Your task to perform on an android device: open device folders in google photos Image 0: 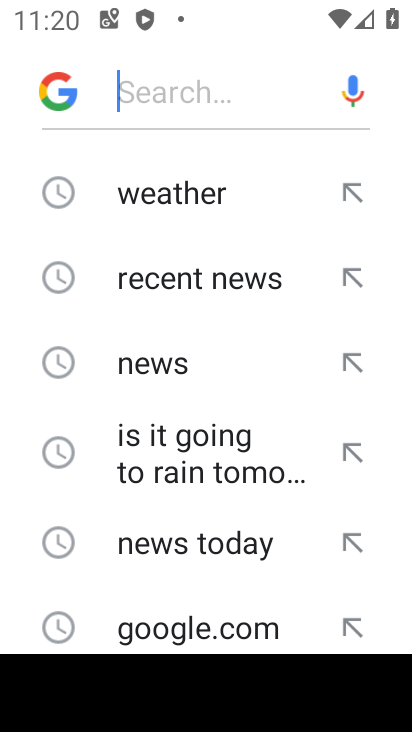
Step 0: press home button
Your task to perform on an android device: open device folders in google photos Image 1: 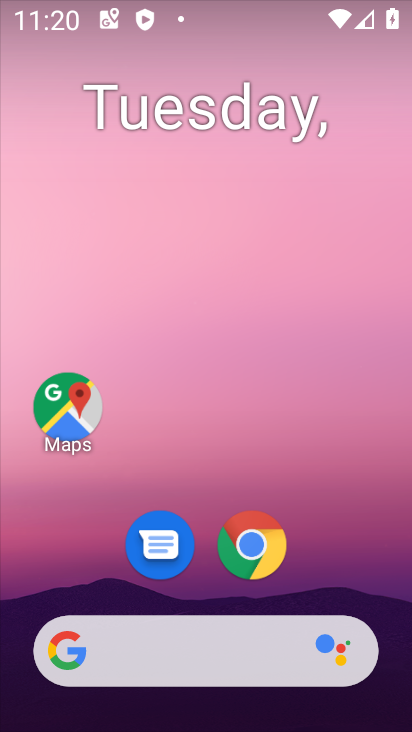
Step 1: drag from (325, 482) to (346, 112)
Your task to perform on an android device: open device folders in google photos Image 2: 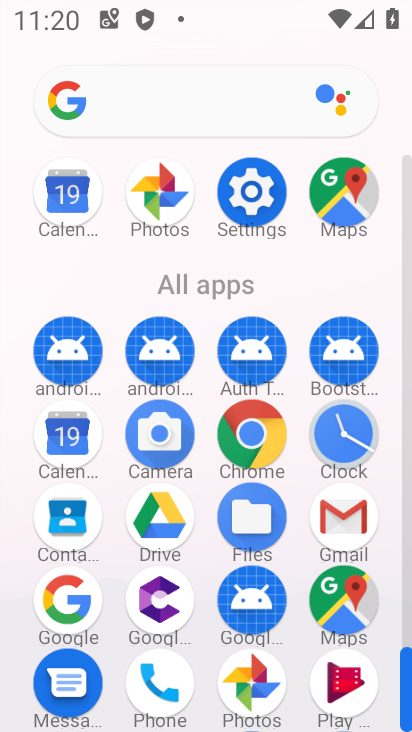
Step 2: click (160, 193)
Your task to perform on an android device: open device folders in google photos Image 3: 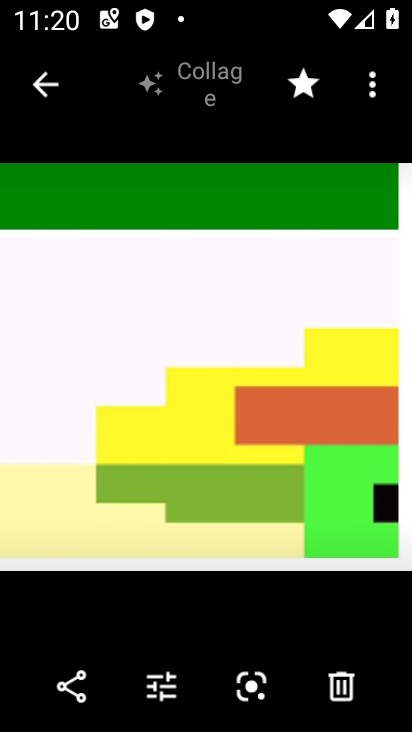
Step 3: click (40, 78)
Your task to perform on an android device: open device folders in google photos Image 4: 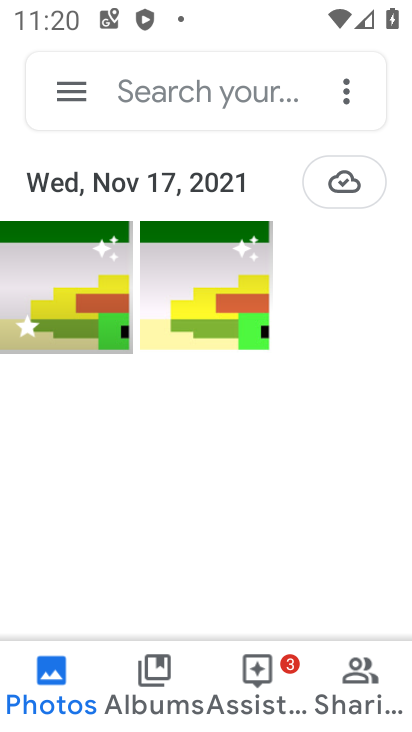
Step 4: click (61, 84)
Your task to perform on an android device: open device folders in google photos Image 5: 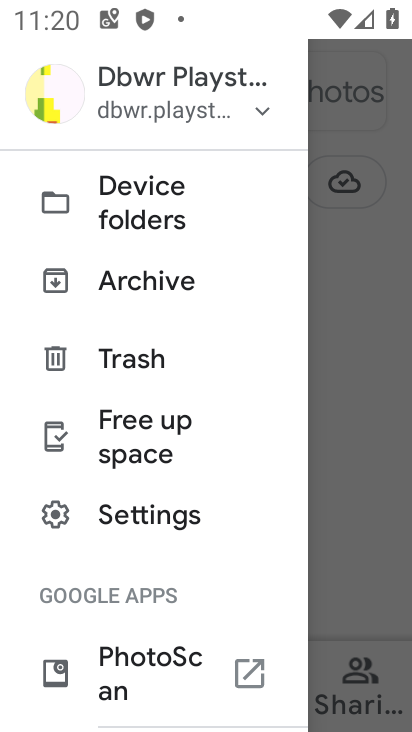
Step 5: click (138, 190)
Your task to perform on an android device: open device folders in google photos Image 6: 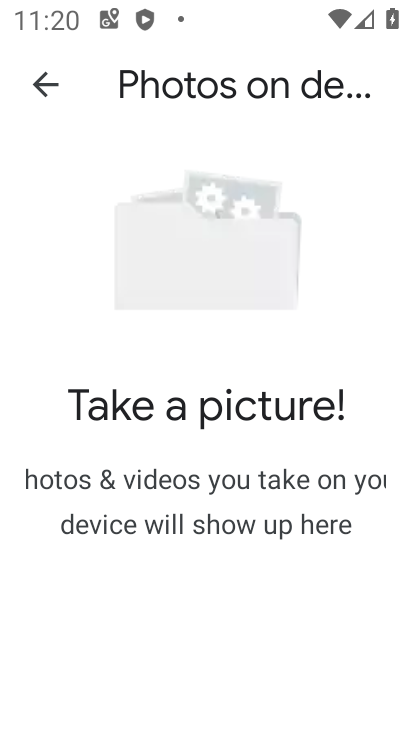
Step 6: task complete